Your task to perform on an android device: open the mobile data screen to see how much data has been used Image 0: 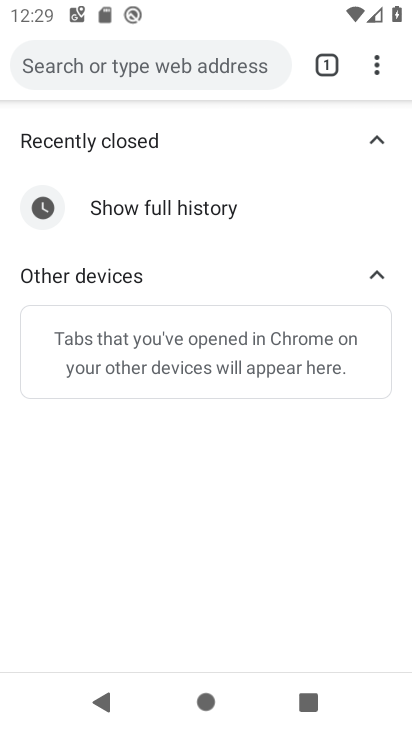
Step 0: press home button
Your task to perform on an android device: open the mobile data screen to see how much data has been used Image 1: 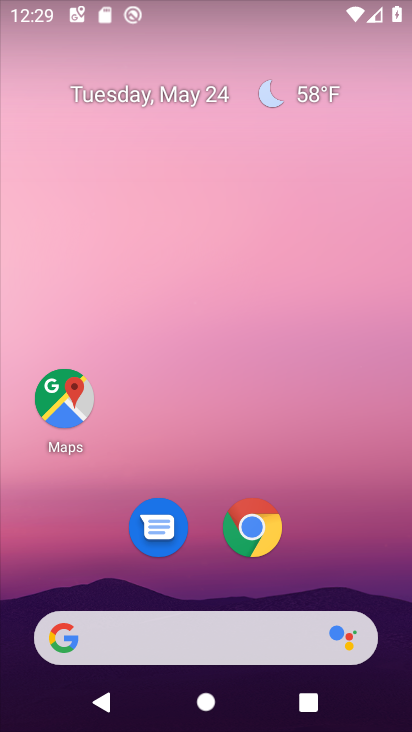
Step 1: drag from (381, 622) to (356, 198)
Your task to perform on an android device: open the mobile data screen to see how much data has been used Image 2: 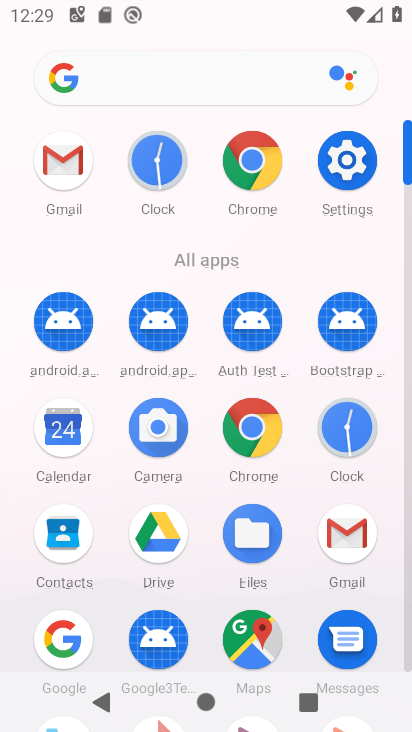
Step 2: click (342, 154)
Your task to perform on an android device: open the mobile data screen to see how much data has been used Image 3: 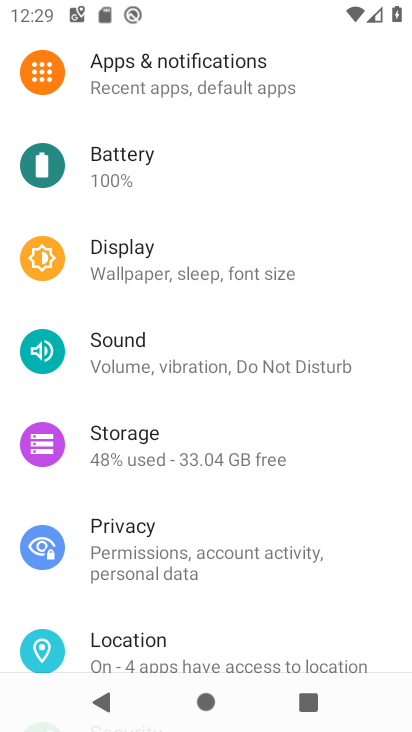
Step 3: drag from (187, 107) to (215, 710)
Your task to perform on an android device: open the mobile data screen to see how much data has been used Image 4: 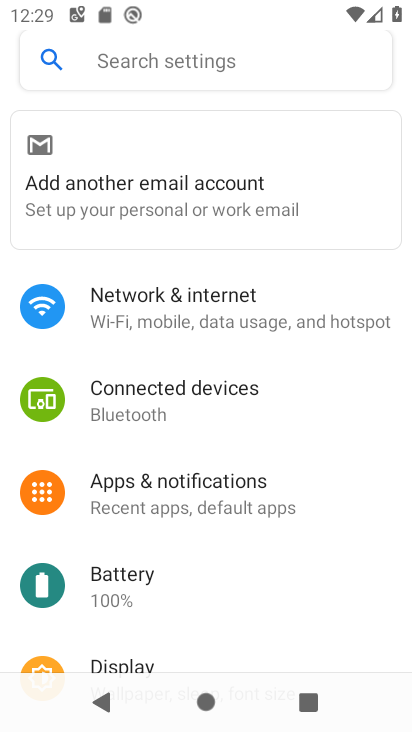
Step 4: click (211, 336)
Your task to perform on an android device: open the mobile data screen to see how much data has been used Image 5: 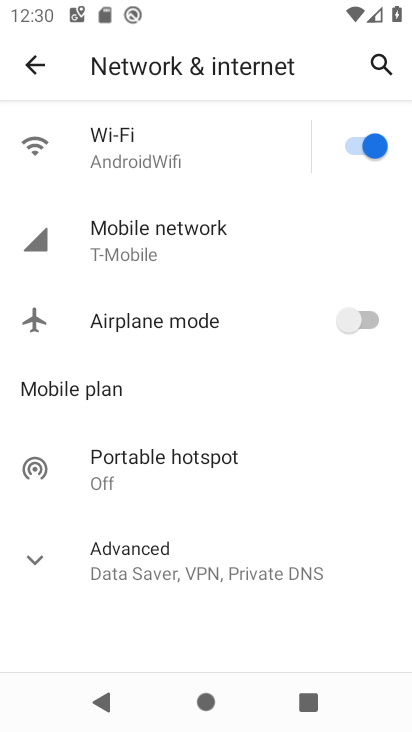
Step 5: click (195, 247)
Your task to perform on an android device: open the mobile data screen to see how much data has been used Image 6: 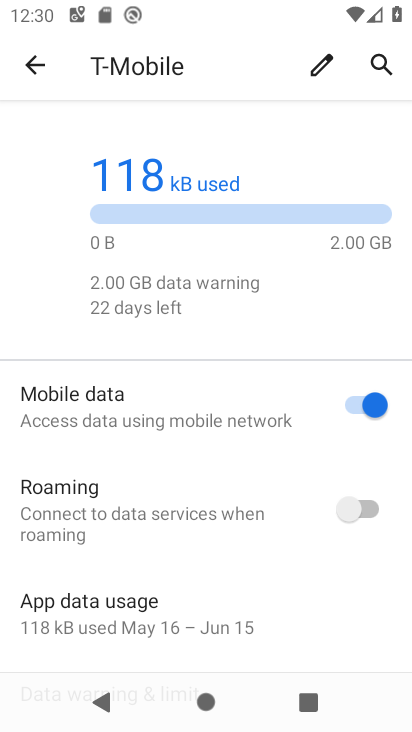
Step 6: task complete